Your task to perform on an android device: turn on sleep mode Image 0: 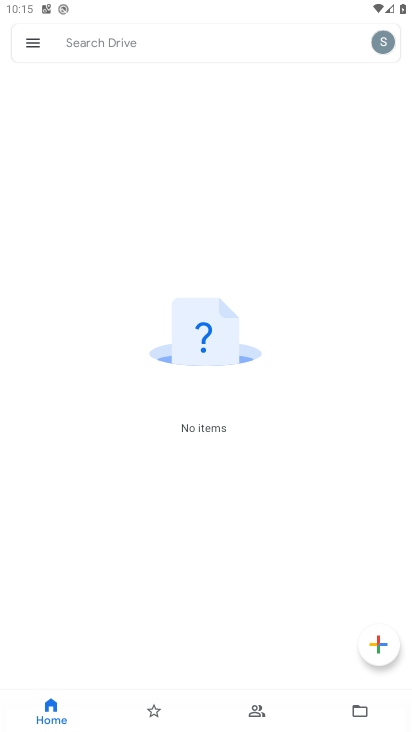
Step 0: press home button
Your task to perform on an android device: turn on sleep mode Image 1: 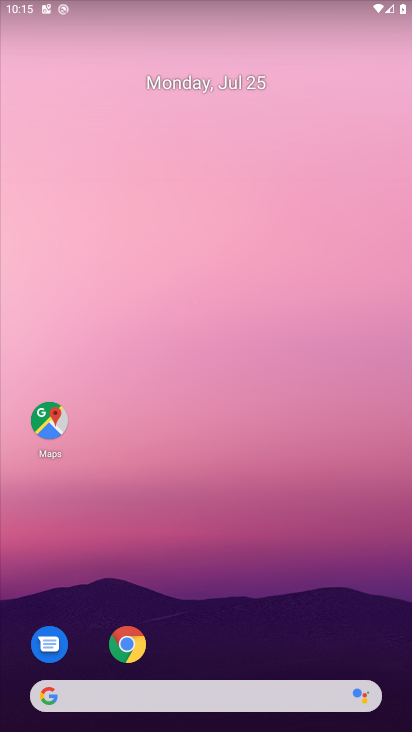
Step 1: drag from (328, 637) to (343, 28)
Your task to perform on an android device: turn on sleep mode Image 2: 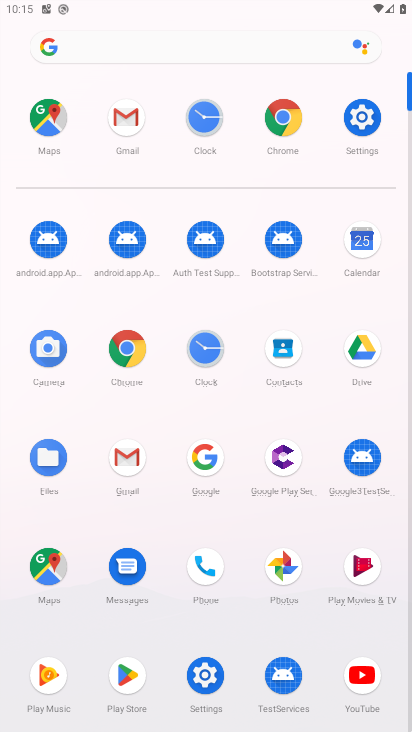
Step 2: click (205, 669)
Your task to perform on an android device: turn on sleep mode Image 3: 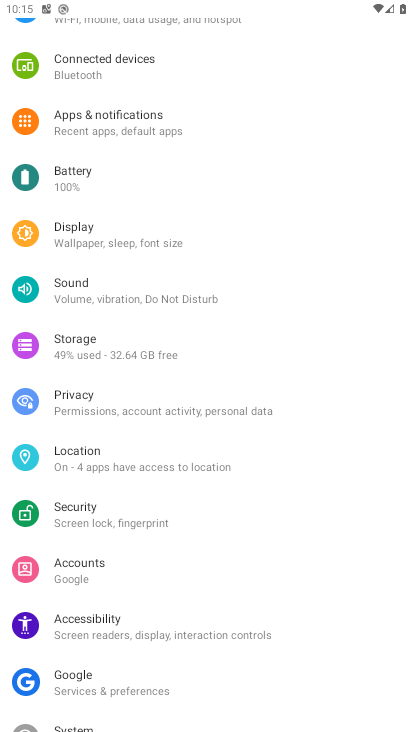
Step 3: click (79, 235)
Your task to perform on an android device: turn on sleep mode Image 4: 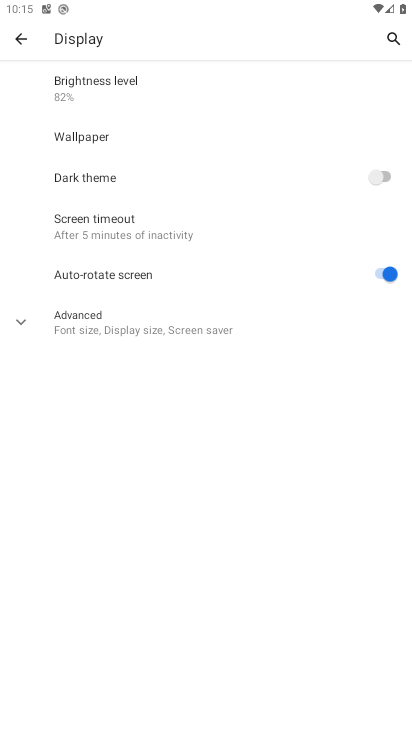
Step 4: click (97, 233)
Your task to perform on an android device: turn on sleep mode Image 5: 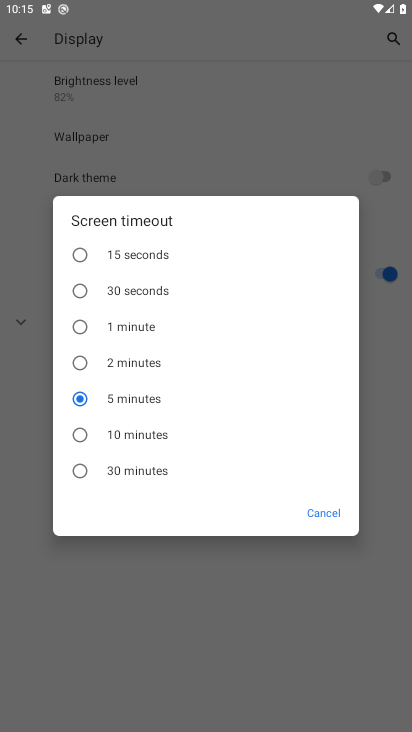
Step 5: click (123, 441)
Your task to perform on an android device: turn on sleep mode Image 6: 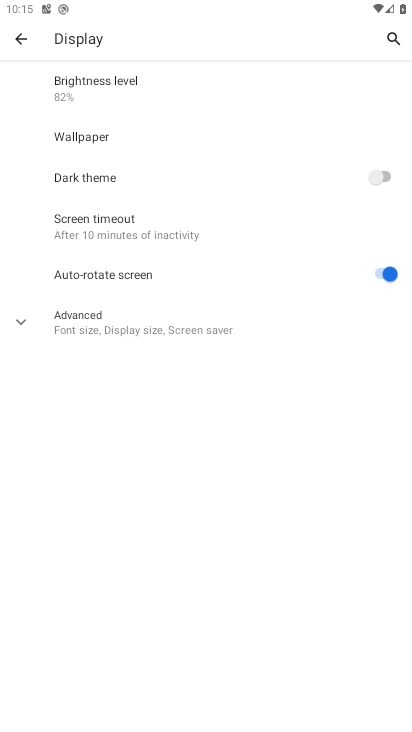
Step 6: task complete